Your task to perform on an android device: turn off wifi Image 0: 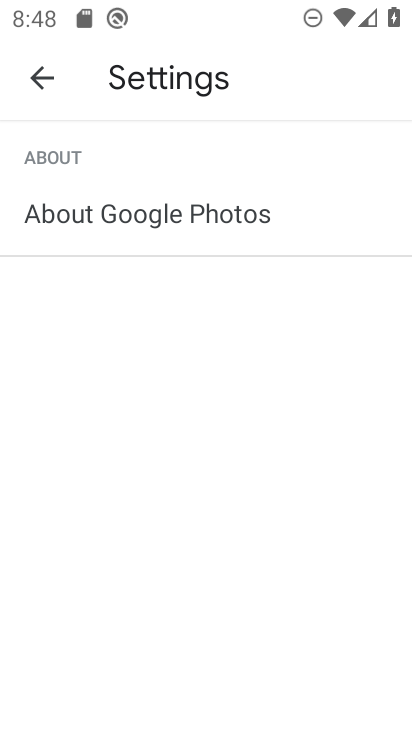
Step 0: press home button
Your task to perform on an android device: turn off wifi Image 1: 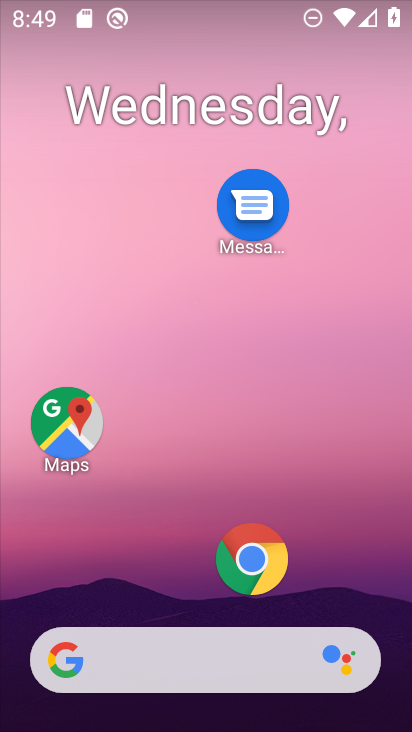
Step 1: drag from (171, 605) to (190, 144)
Your task to perform on an android device: turn off wifi Image 2: 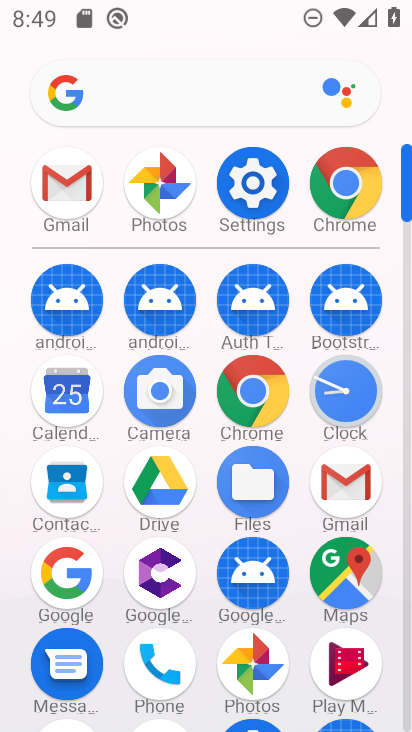
Step 2: click (245, 201)
Your task to perform on an android device: turn off wifi Image 3: 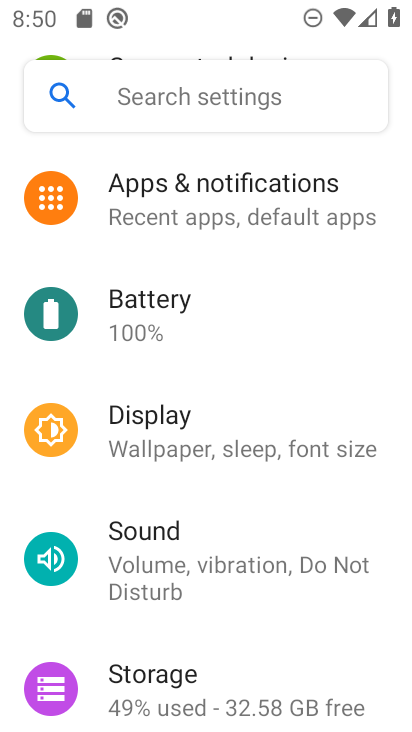
Step 3: drag from (206, 567) to (251, 731)
Your task to perform on an android device: turn off wifi Image 4: 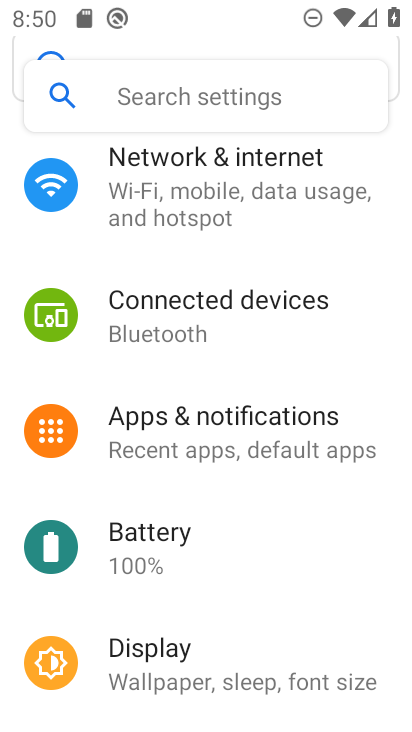
Step 4: drag from (210, 312) to (229, 721)
Your task to perform on an android device: turn off wifi Image 5: 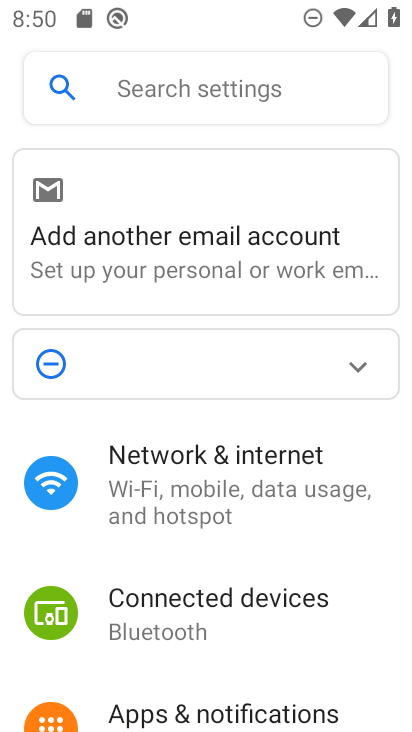
Step 5: click (238, 512)
Your task to perform on an android device: turn off wifi Image 6: 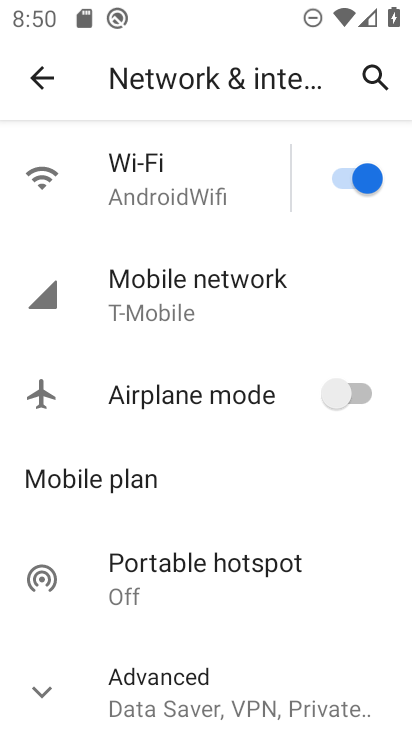
Step 6: click (187, 194)
Your task to perform on an android device: turn off wifi Image 7: 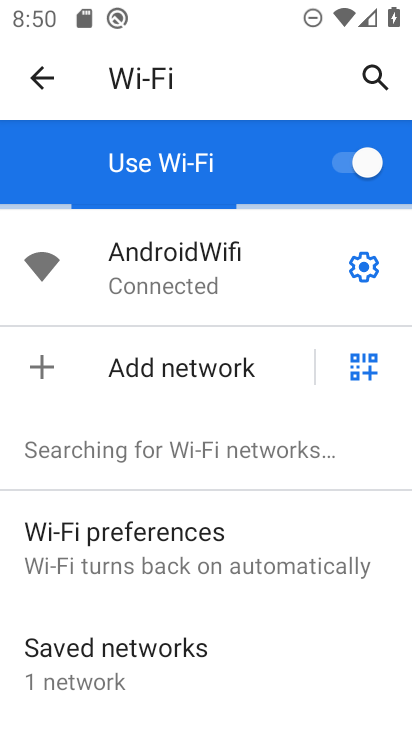
Step 7: task complete